Your task to perform on an android device: turn off location Image 0: 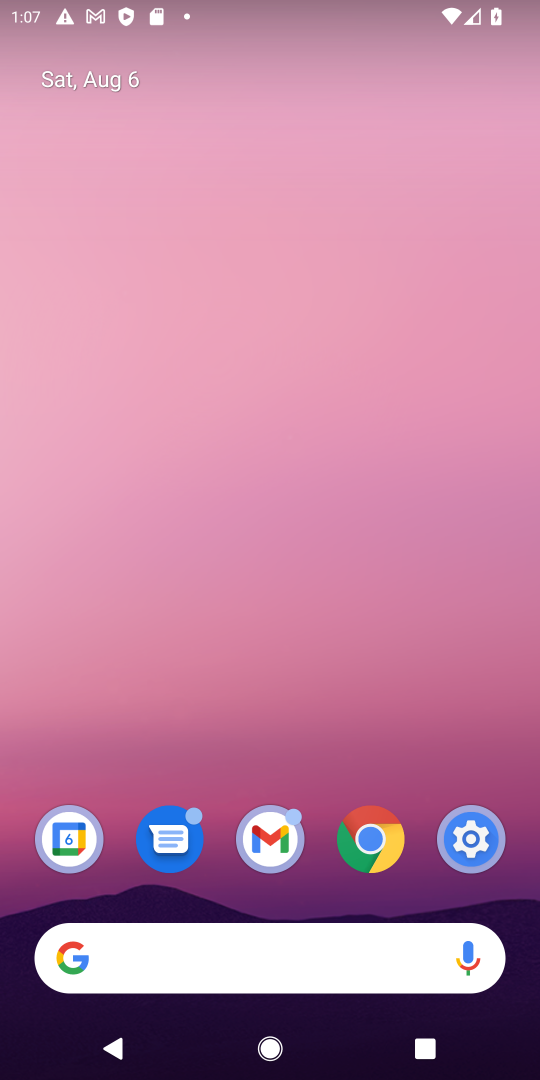
Step 0: click (482, 829)
Your task to perform on an android device: turn off location Image 1: 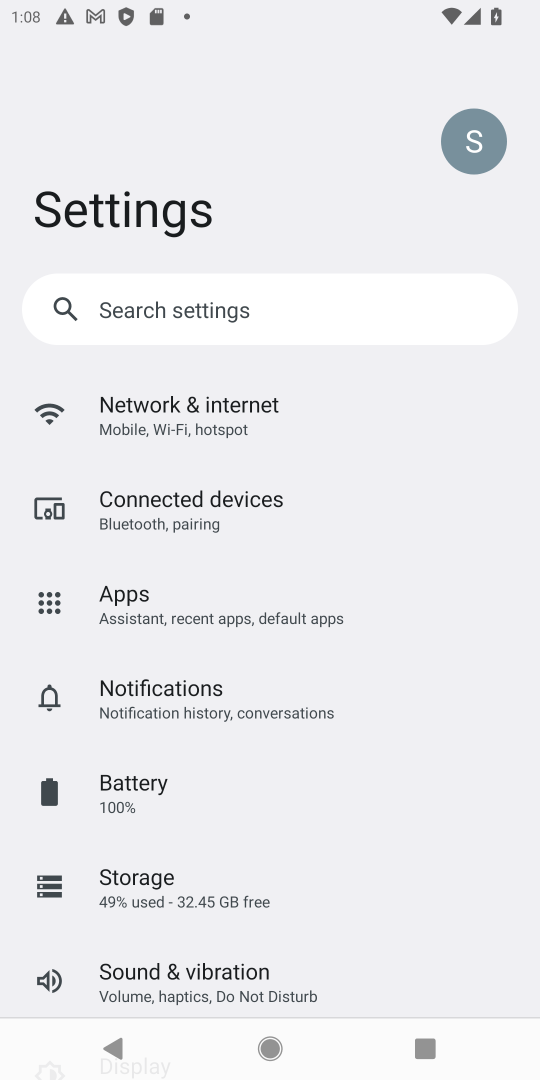
Step 1: drag from (259, 922) to (284, 6)
Your task to perform on an android device: turn off location Image 2: 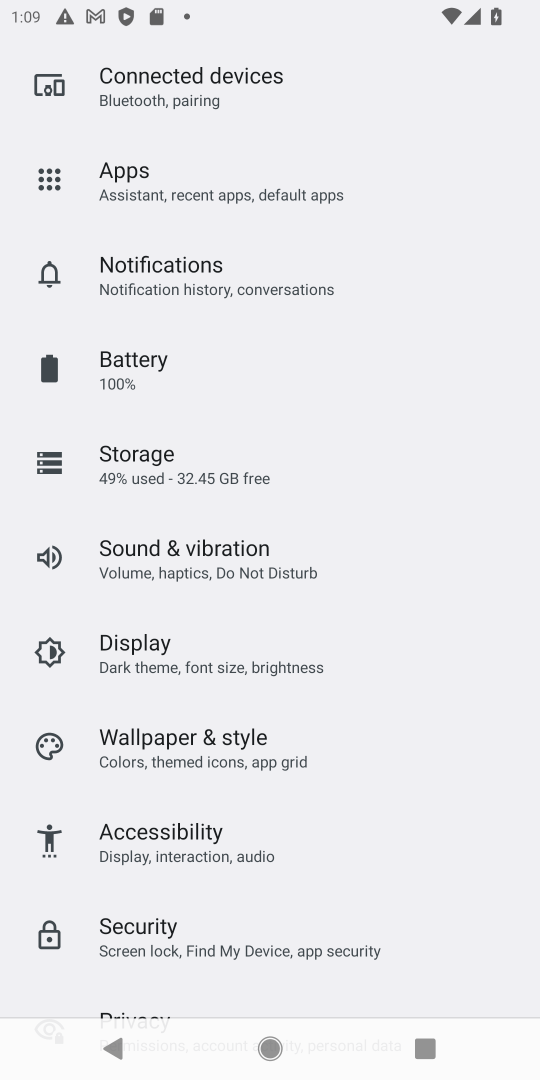
Step 2: drag from (276, 947) to (335, 116)
Your task to perform on an android device: turn off location Image 3: 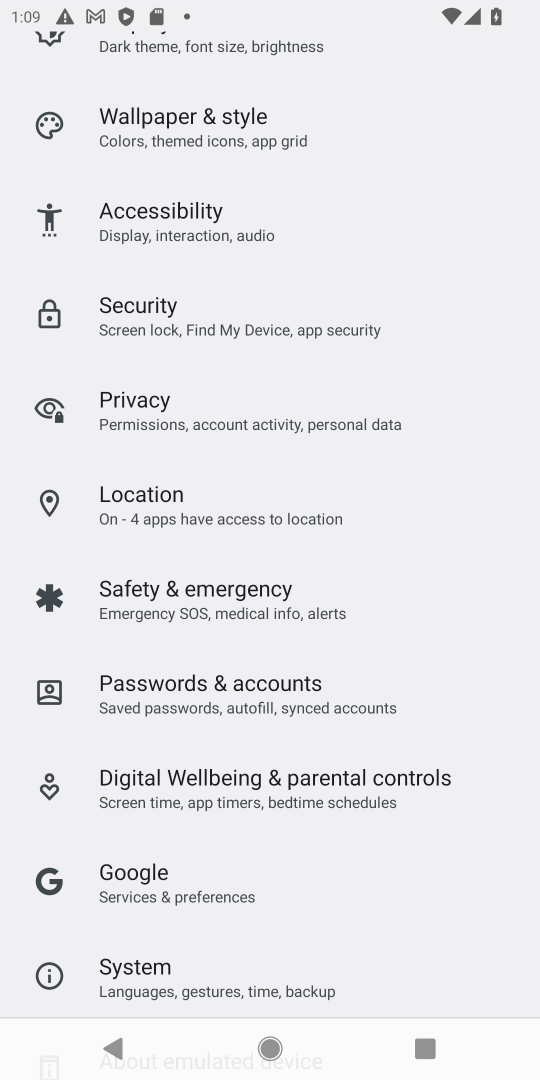
Step 3: click (253, 505)
Your task to perform on an android device: turn off location Image 4: 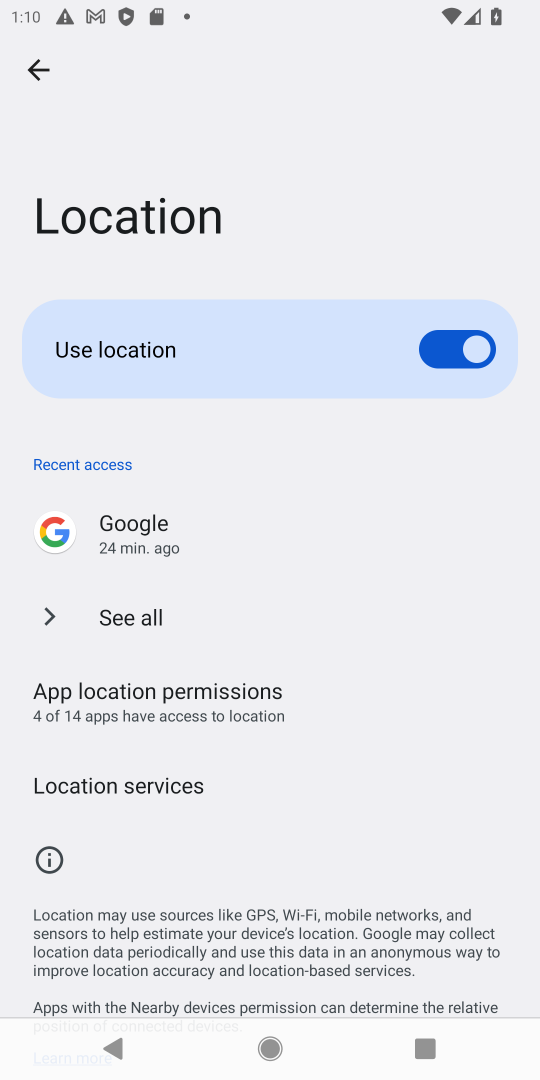
Step 4: click (472, 348)
Your task to perform on an android device: turn off location Image 5: 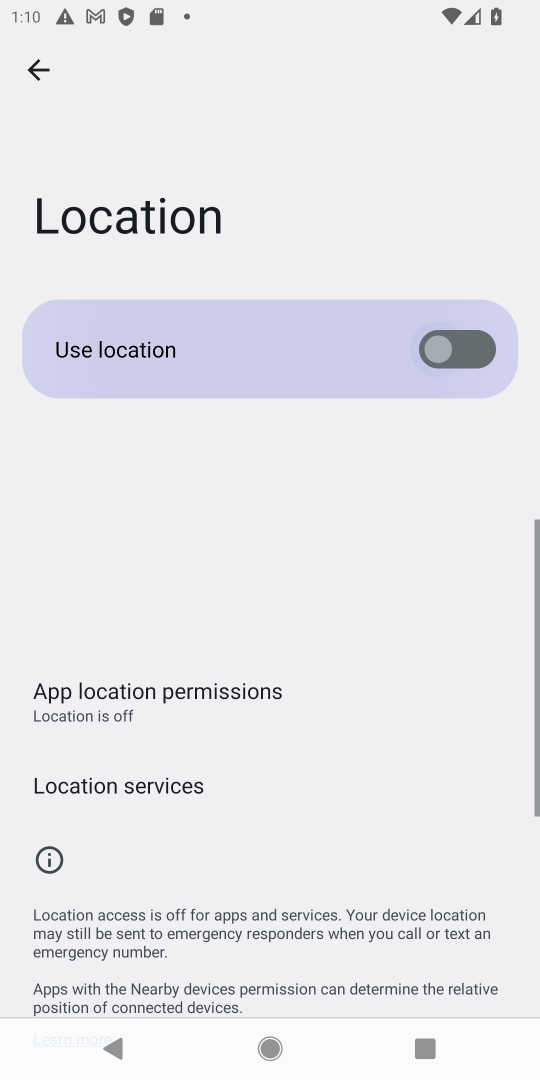
Step 5: task complete